Your task to perform on an android device: Open Google Image 0: 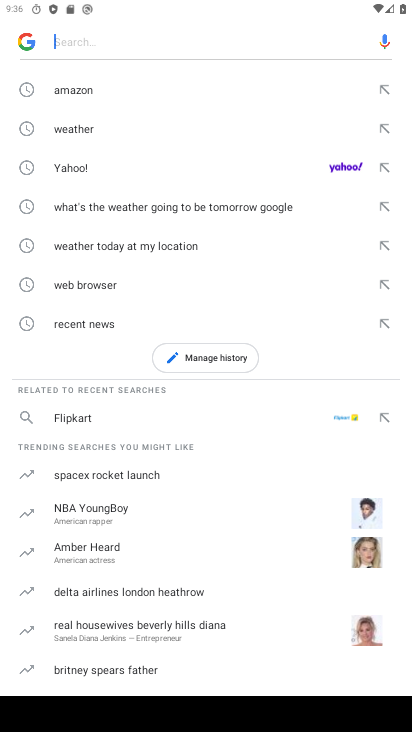
Step 0: press home button
Your task to perform on an android device: Open Google Image 1: 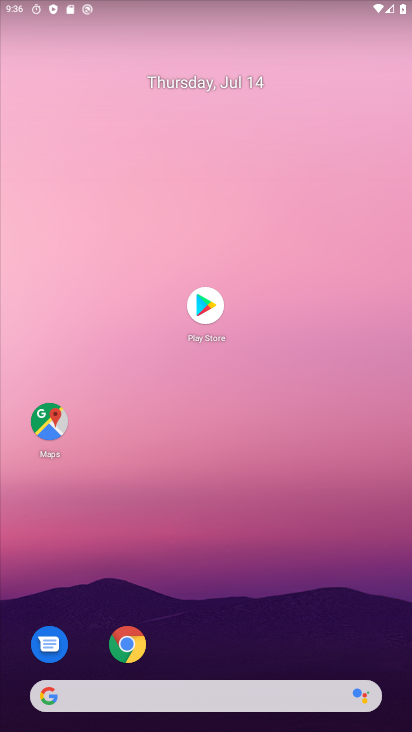
Step 1: drag from (188, 652) to (217, 136)
Your task to perform on an android device: Open Google Image 2: 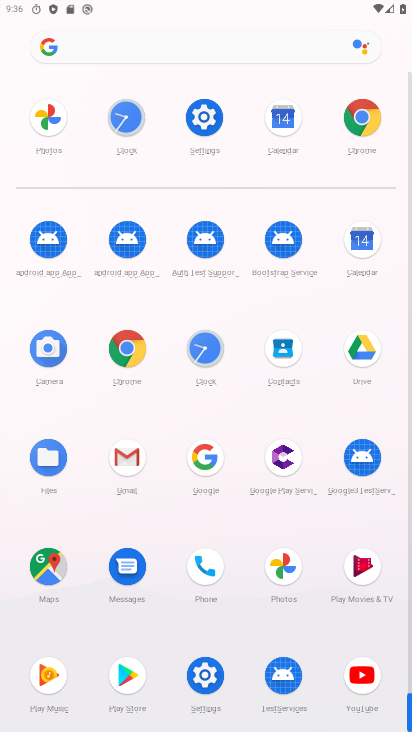
Step 2: click (198, 458)
Your task to perform on an android device: Open Google Image 3: 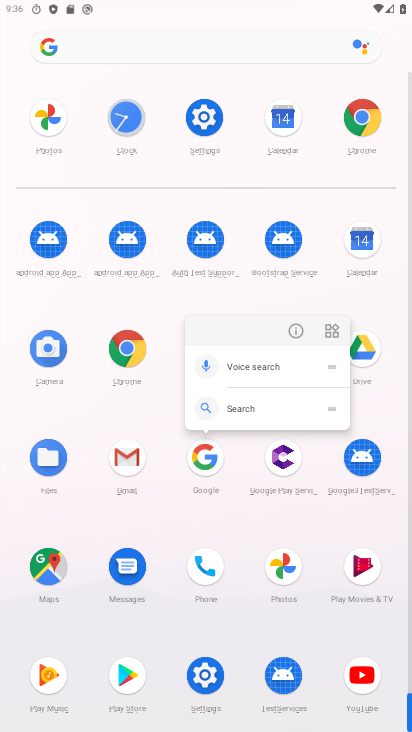
Step 3: click (302, 334)
Your task to perform on an android device: Open Google Image 4: 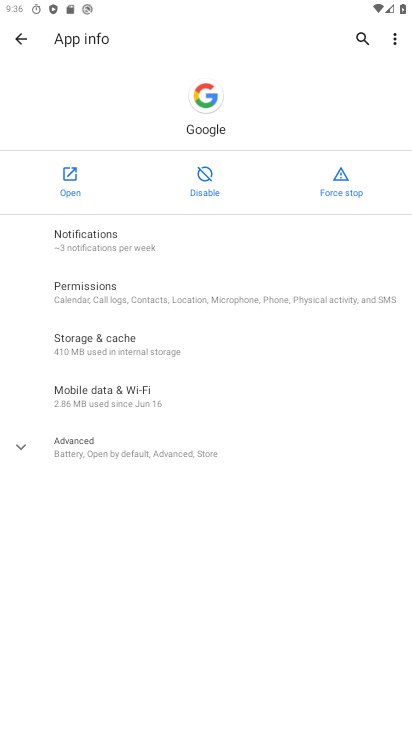
Step 4: click (70, 201)
Your task to perform on an android device: Open Google Image 5: 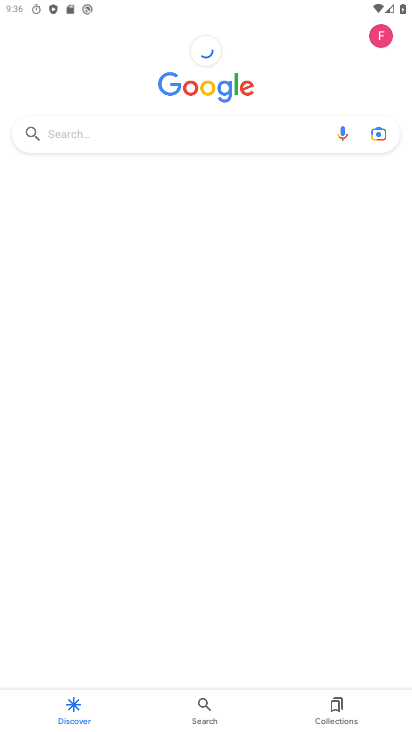
Step 5: task complete